Your task to perform on an android device: add a contact in the contacts app Image 0: 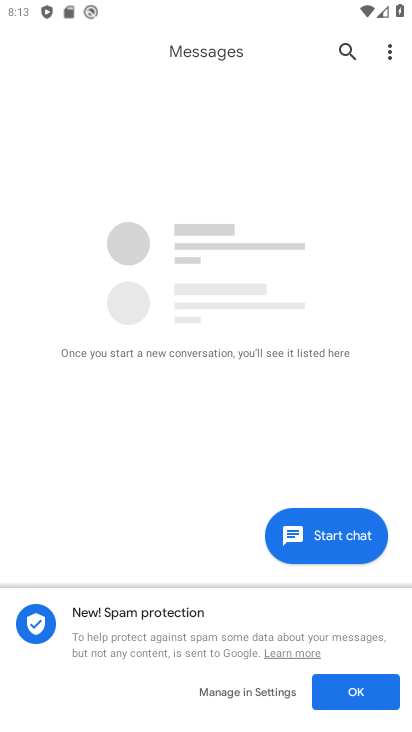
Step 0: press back button
Your task to perform on an android device: add a contact in the contacts app Image 1: 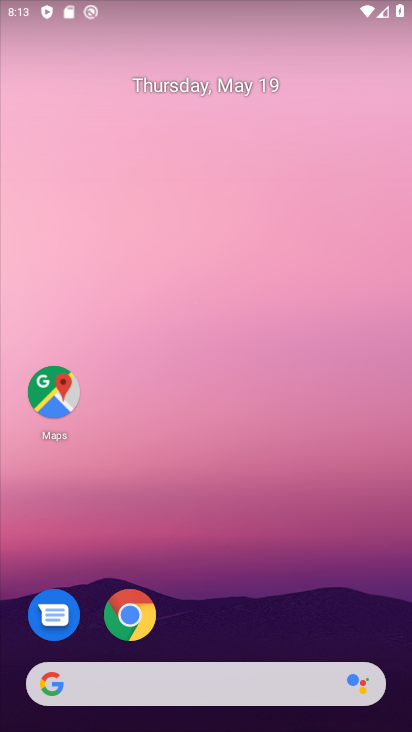
Step 1: drag from (244, 590) to (223, 124)
Your task to perform on an android device: add a contact in the contacts app Image 2: 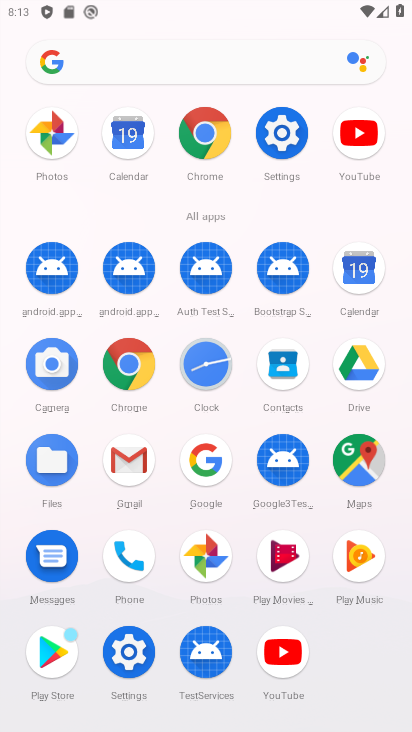
Step 2: click (282, 366)
Your task to perform on an android device: add a contact in the contacts app Image 3: 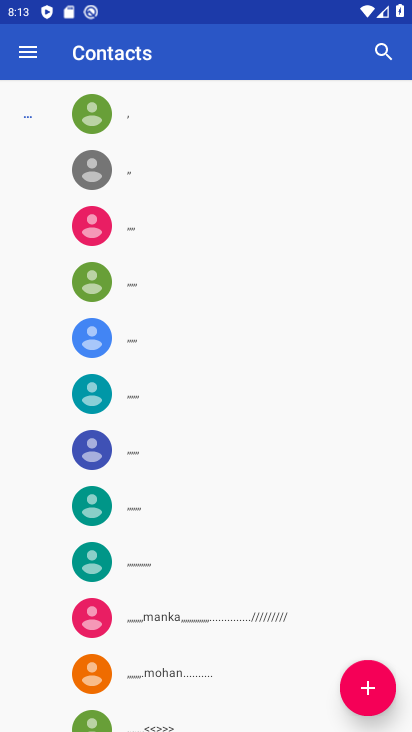
Step 3: click (368, 689)
Your task to perform on an android device: add a contact in the contacts app Image 4: 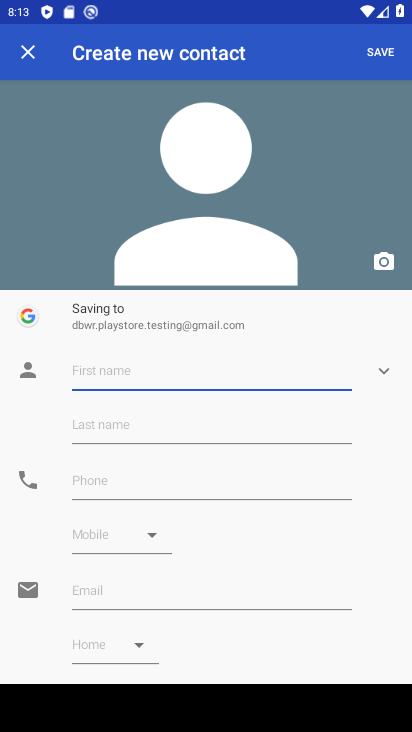
Step 4: click (189, 376)
Your task to perform on an android device: add a contact in the contacts app Image 5: 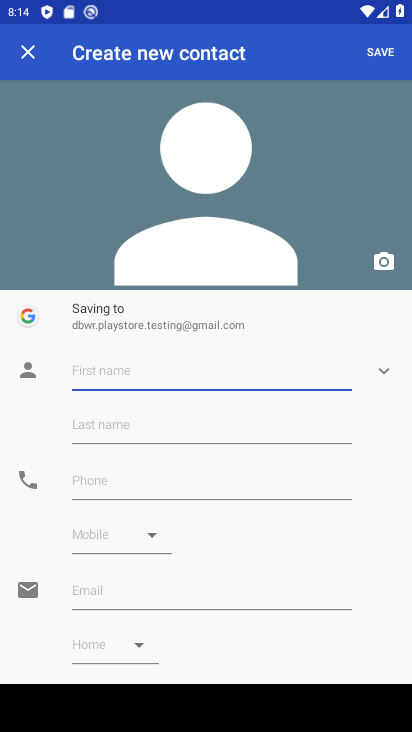
Step 5: type "sriniwasan"
Your task to perform on an android device: add a contact in the contacts app Image 6: 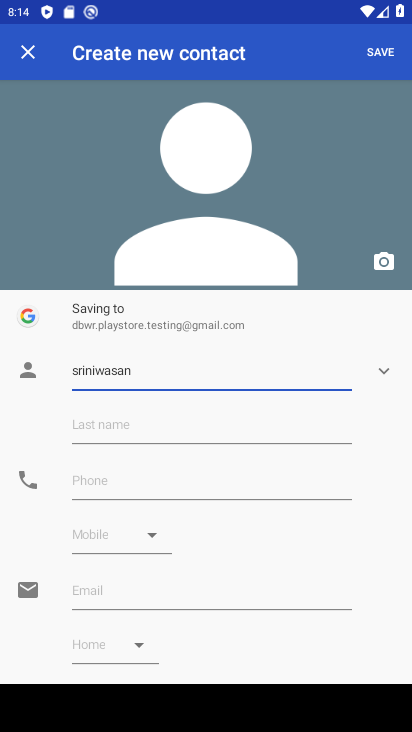
Step 6: click (208, 418)
Your task to perform on an android device: add a contact in the contacts app Image 7: 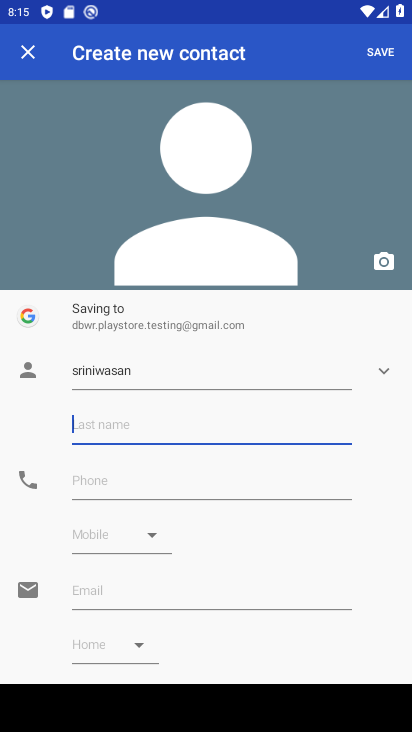
Step 7: type "alluarjun"
Your task to perform on an android device: add a contact in the contacts app Image 8: 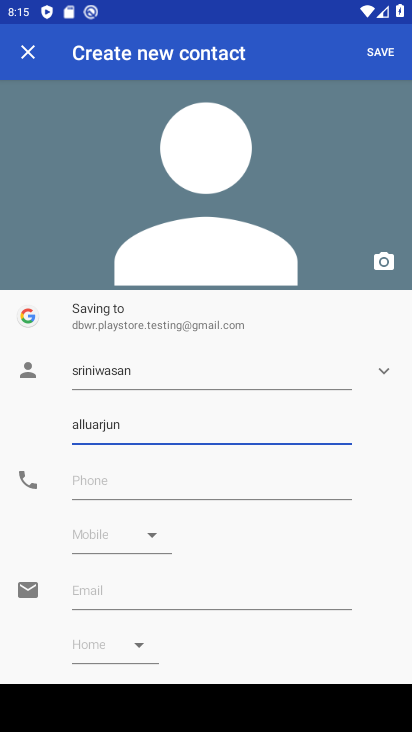
Step 8: click (164, 492)
Your task to perform on an android device: add a contact in the contacts app Image 9: 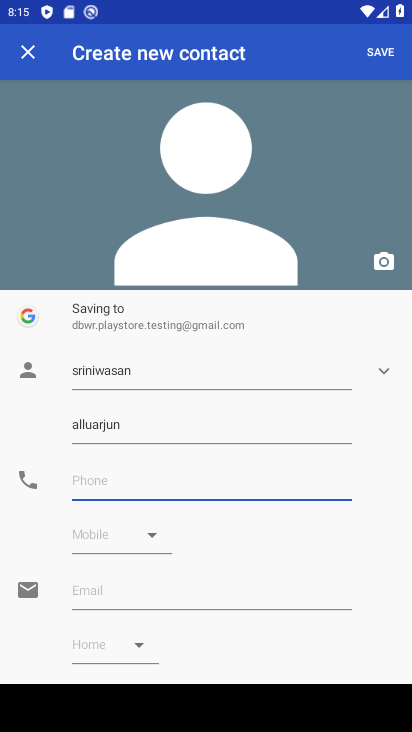
Step 9: type "0987123487"
Your task to perform on an android device: add a contact in the contacts app Image 10: 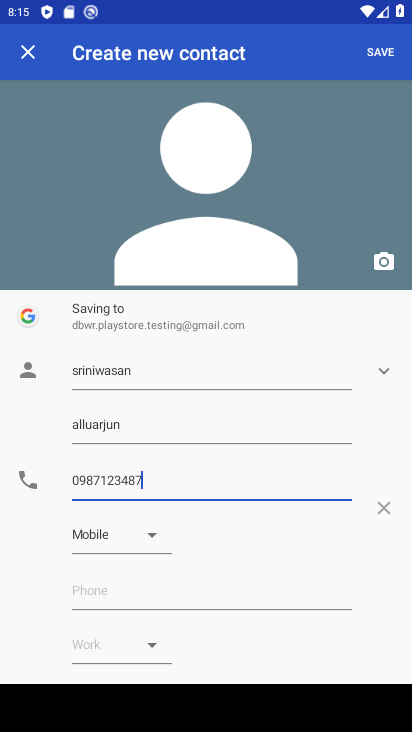
Step 10: click (374, 54)
Your task to perform on an android device: add a contact in the contacts app Image 11: 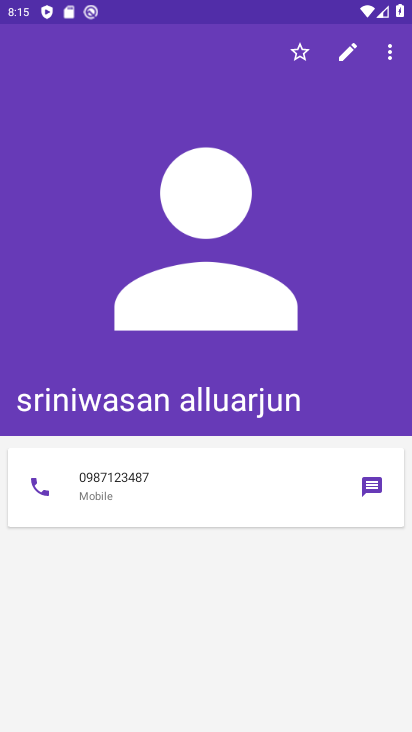
Step 11: task complete